Your task to perform on an android device: open app "Fetch Rewards" Image 0: 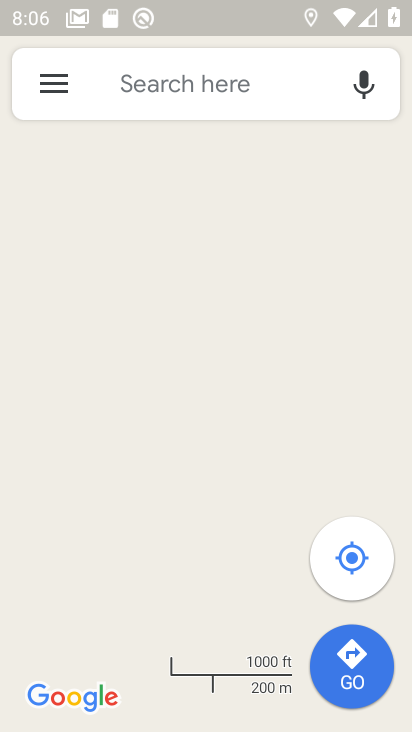
Step 0: press home button
Your task to perform on an android device: open app "Fetch Rewards" Image 1: 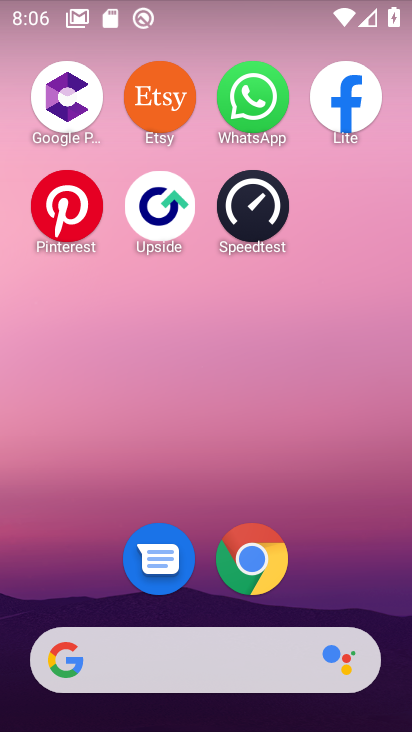
Step 1: drag from (203, 475) to (178, 95)
Your task to perform on an android device: open app "Fetch Rewards" Image 2: 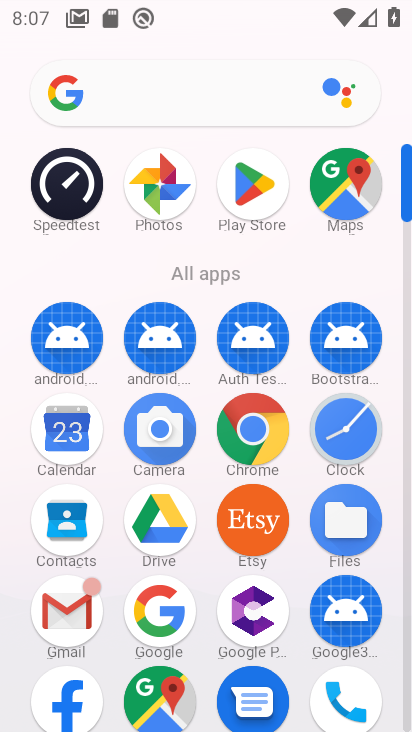
Step 2: click (270, 186)
Your task to perform on an android device: open app "Fetch Rewards" Image 3: 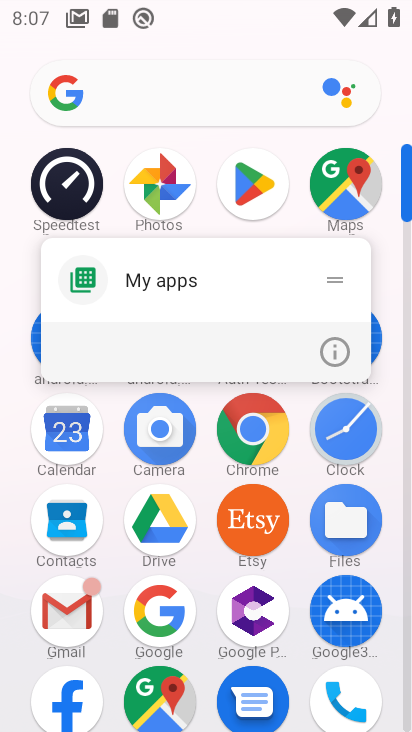
Step 3: click (270, 186)
Your task to perform on an android device: open app "Fetch Rewards" Image 4: 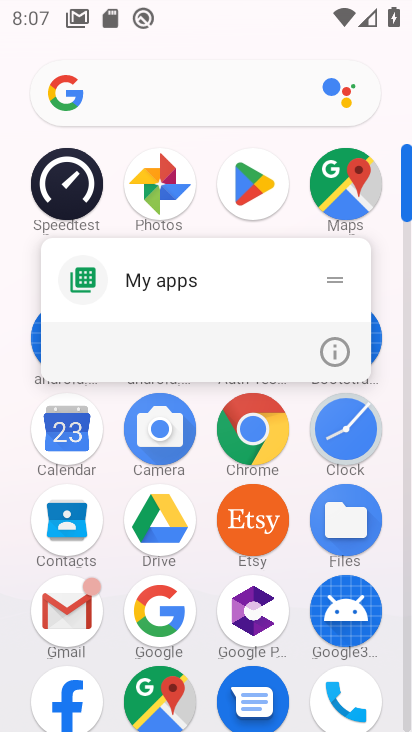
Step 4: click (240, 184)
Your task to perform on an android device: open app "Fetch Rewards" Image 5: 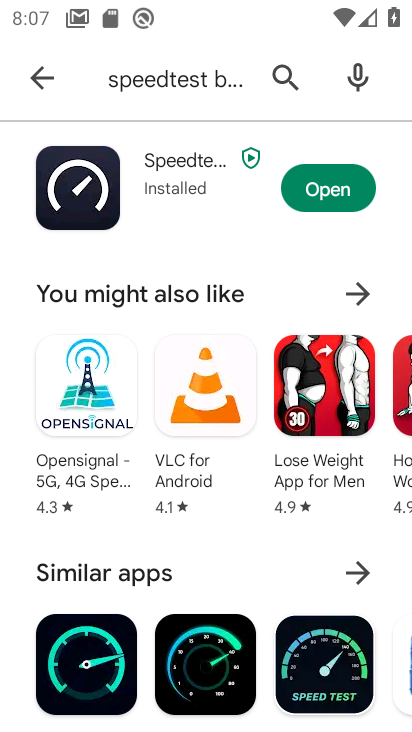
Step 5: click (286, 70)
Your task to perform on an android device: open app "Fetch Rewards" Image 6: 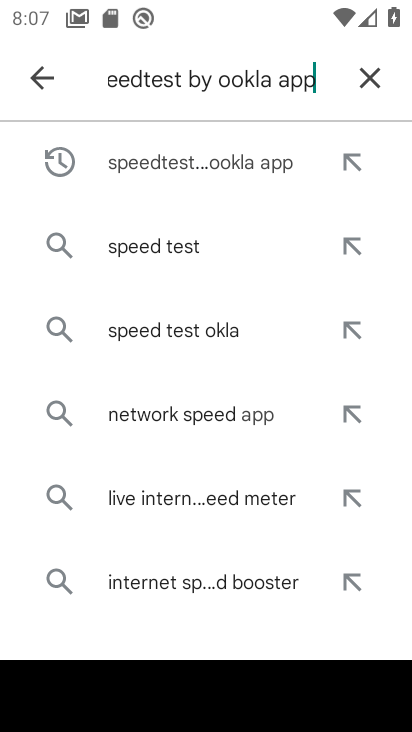
Step 6: click (367, 80)
Your task to perform on an android device: open app "Fetch Rewards" Image 7: 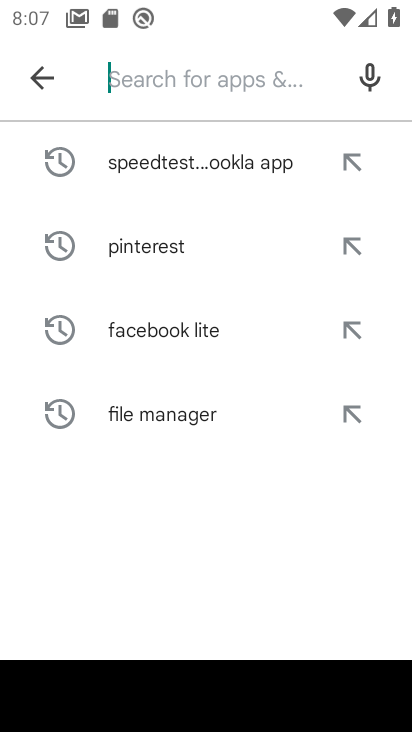
Step 7: type "Fetch Rewards"
Your task to perform on an android device: open app "Fetch Rewards" Image 8: 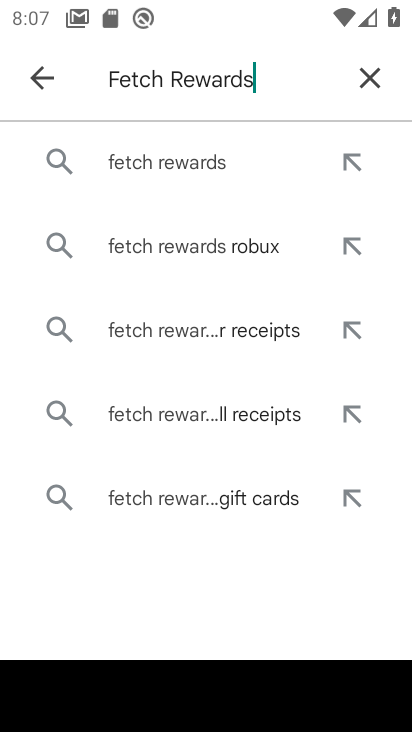
Step 8: click (224, 156)
Your task to perform on an android device: open app "Fetch Rewards" Image 9: 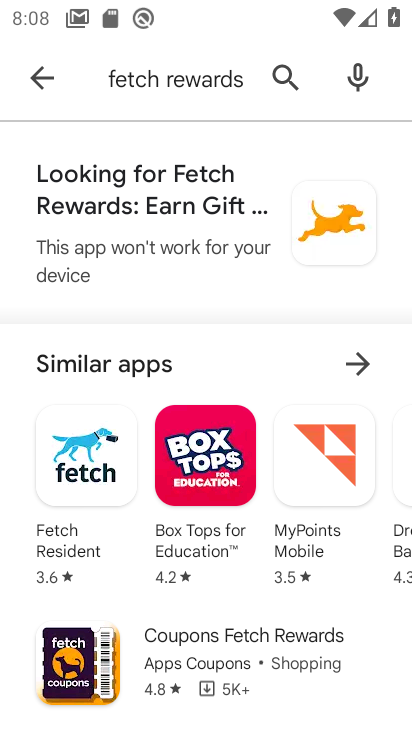
Step 9: task complete